Your task to perform on an android device: turn notification dots on Image 0: 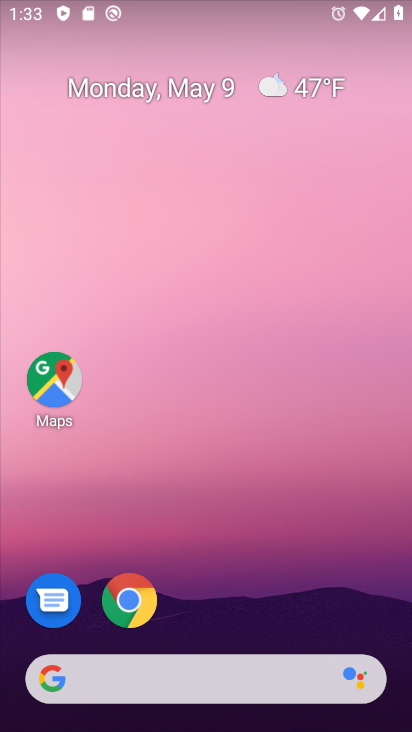
Step 0: drag from (206, 667) to (207, 9)
Your task to perform on an android device: turn notification dots on Image 1: 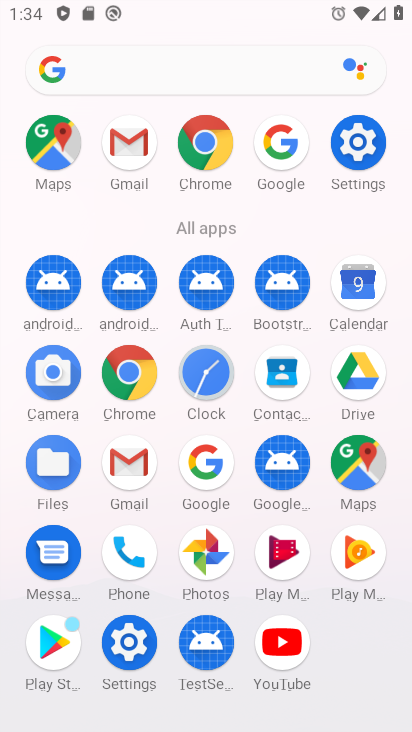
Step 1: click (356, 142)
Your task to perform on an android device: turn notification dots on Image 2: 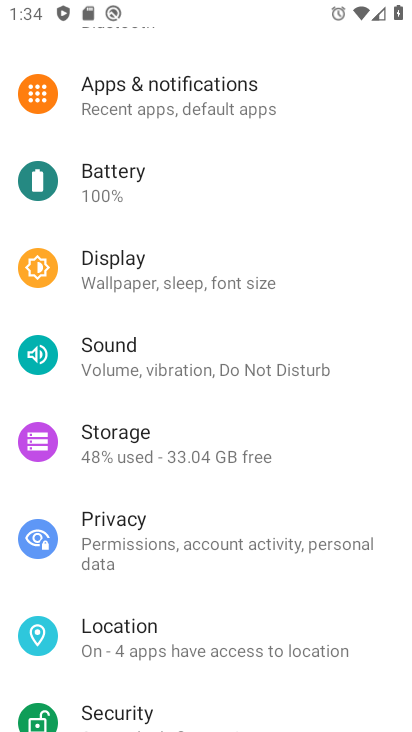
Step 2: click (185, 108)
Your task to perform on an android device: turn notification dots on Image 3: 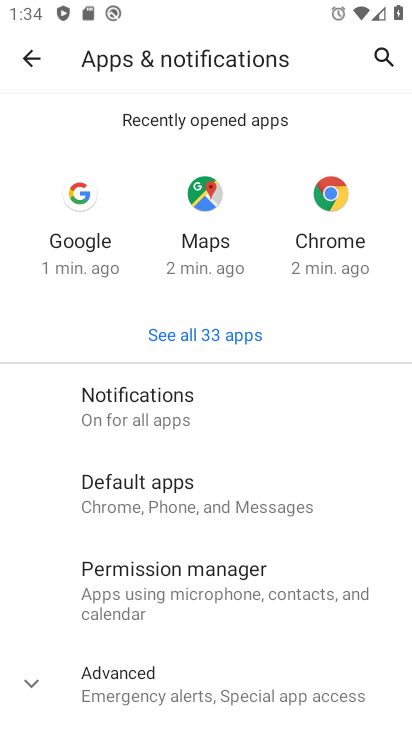
Step 3: click (152, 420)
Your task to perform on an android device: turn notification dots on Image 4: 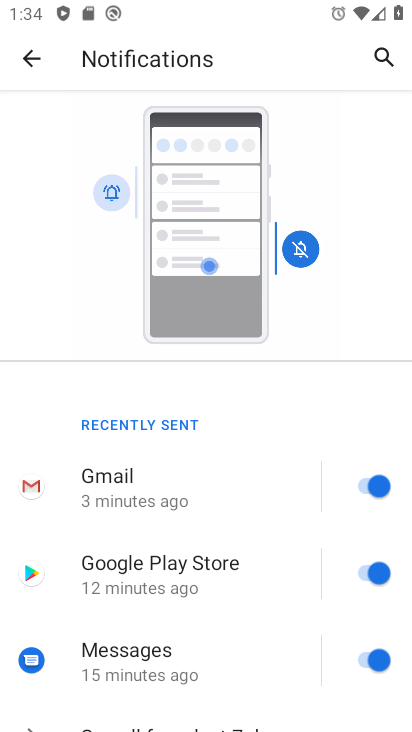
Step 4: drag from (130, 647) to (158, 364)
Your task to perform on an android device: turn notification dots on Image 5: 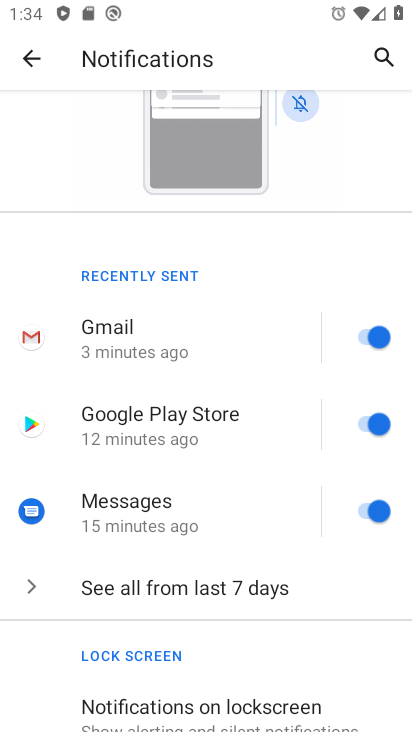
Step 5: drag from (180, 686) to (185, 507)
Your task to perform on an android device: turn notification dots on Image 6: 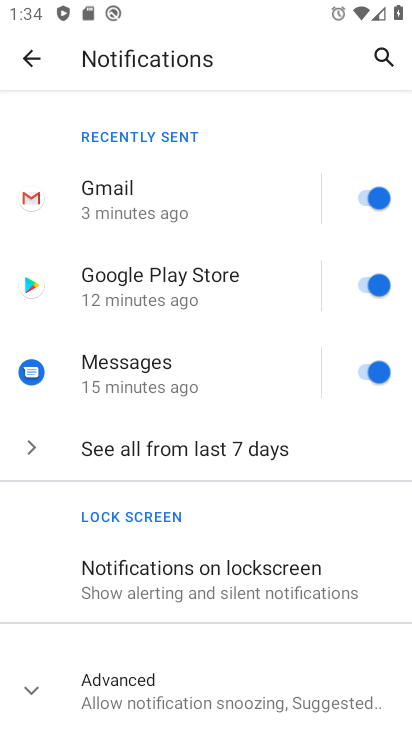
Step 6: click (157, 693)
Your task to perform on an android device: turn notification dots on Image 7: 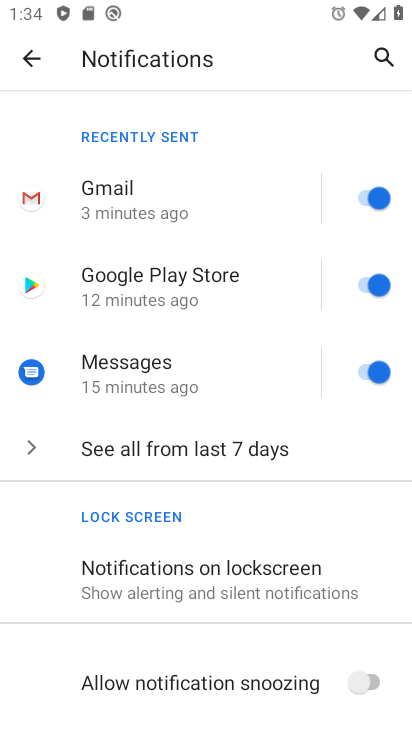
Step 7: task complete